Your task to perform on an android device: move a message to another label in the gmail app Image 0: 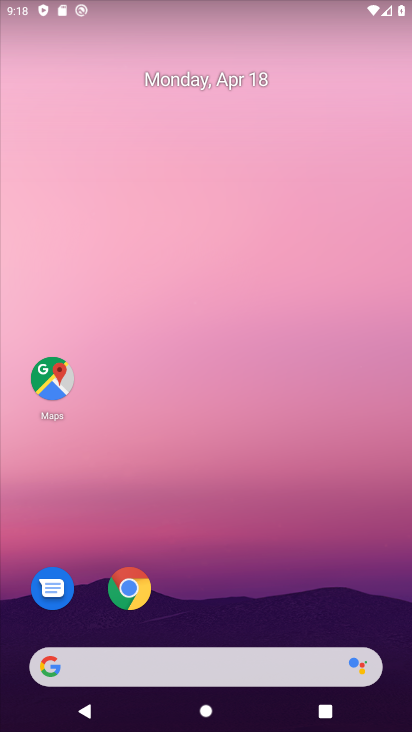
Step 0: drag from (278, 611) to (350, 50)
Your task to perform on an android device: move a message to another label in the gmail app Image 1: 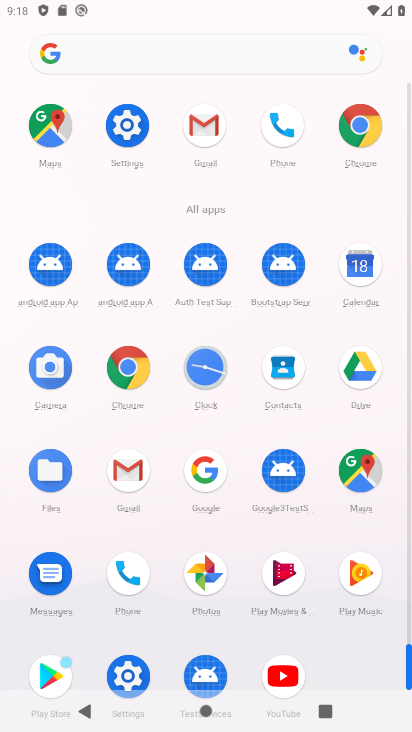
Step 1: click (135, 465)
Your task to perform on an android device: move a message to another label in the gmail app Image 2: 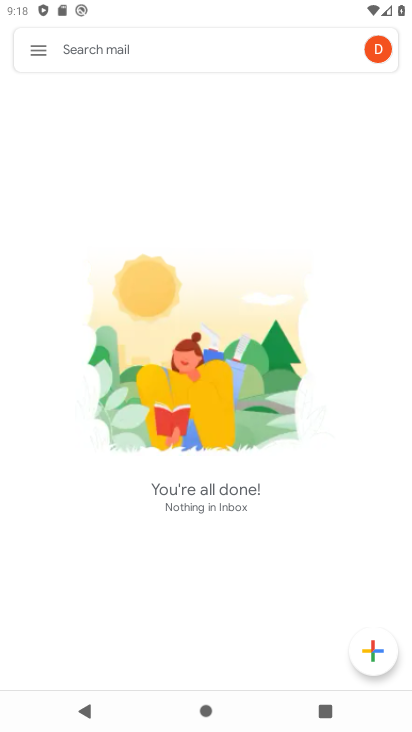
Step 2: click (38, 53)
Your task to perform on an android device: move a message to another label in the gmail app Image 3: 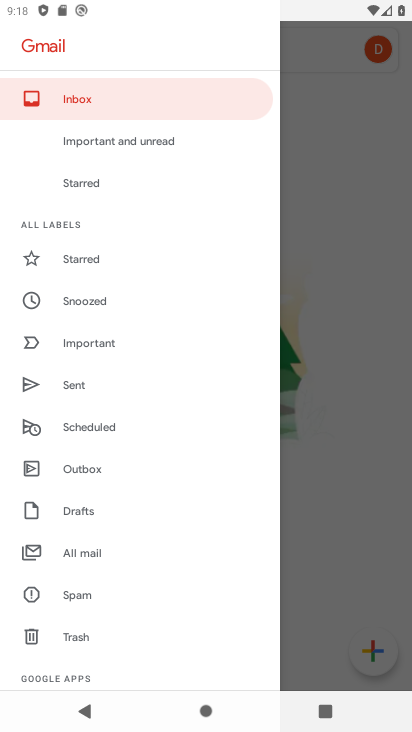
Step 3: click (102, 549)
Your task to perform on an android device: move a message to another label in the gmail app Image 4: 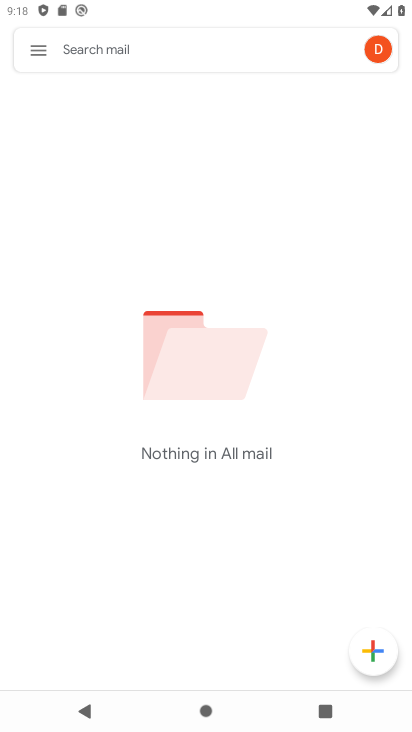
Step 4: task complete